Your task to perform on an android device: change the clock display to analog Image 0: 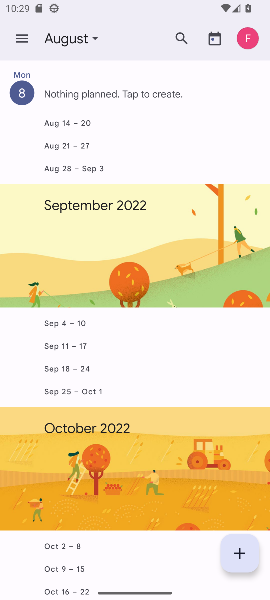
Step 0: press home button
Your task to perform on an android device: change the clock display to analog Image 1: 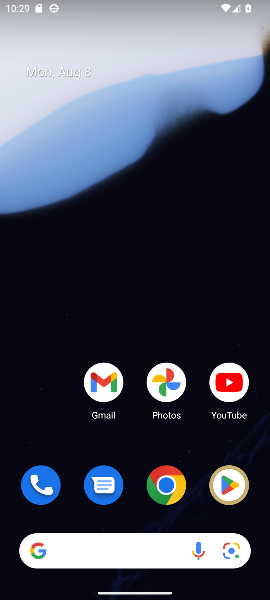
Step 1: drag from (137, 467) to (110, 22)
Your task to perform on an android device: change the clock display to analog Image 2: 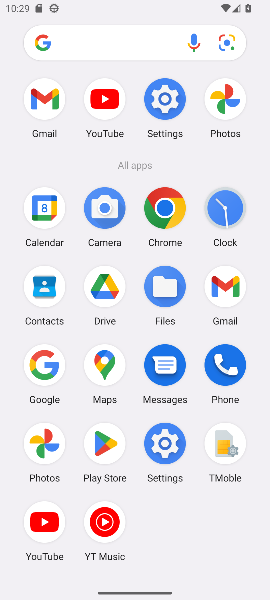
Step 2: click (221, 206)
Your task to perform on an android device: change the clock display to analog Image 3: 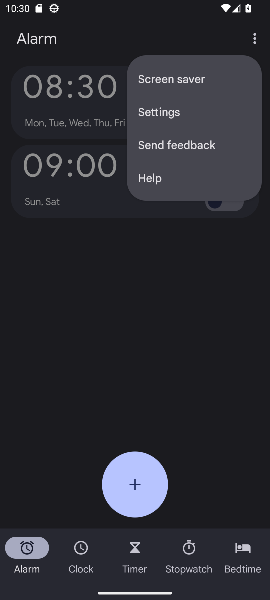
Step 3: click (266, 280)
Your task to perform on an android device: change the clock display to analog Image 4: 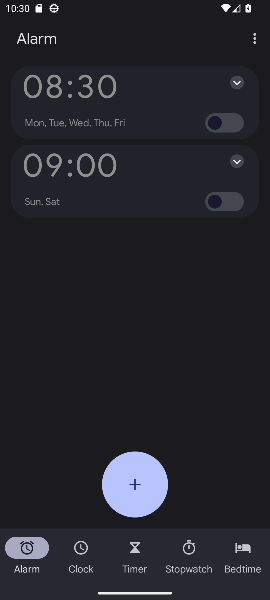
Step 4: click (258, 35)
Your task to perform on an android device: change the clock display to analog Image 5: 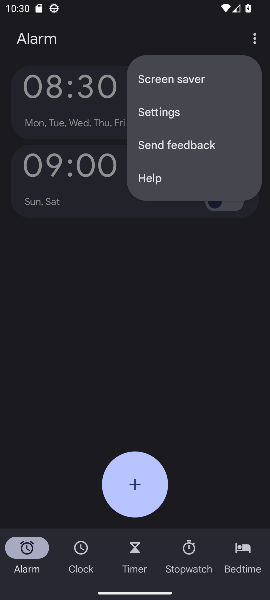
Step 5: click (164, 112)
Your task to perform on an android device: change the clock display to analog Image 6: 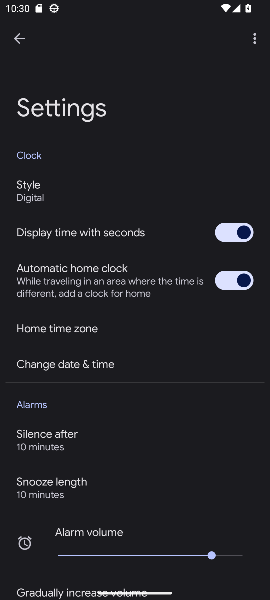
Step 6: click (70, 197)
Your task to perform on an android device: change the clock display to analog Image 7: 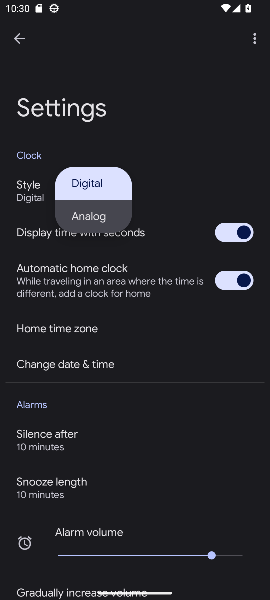
Step 7: click (92, 210)
Your task to perform on an android device: change the clock display to analog Image 8: 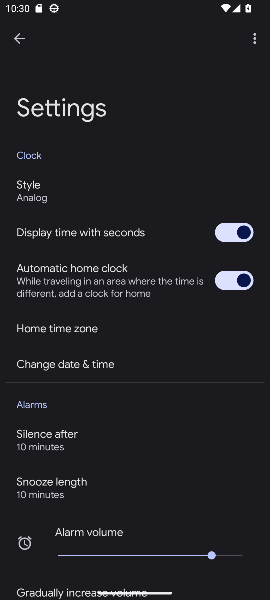
Step 8: task complete